Your task to perform on an android device: Open battery settings Image 0: 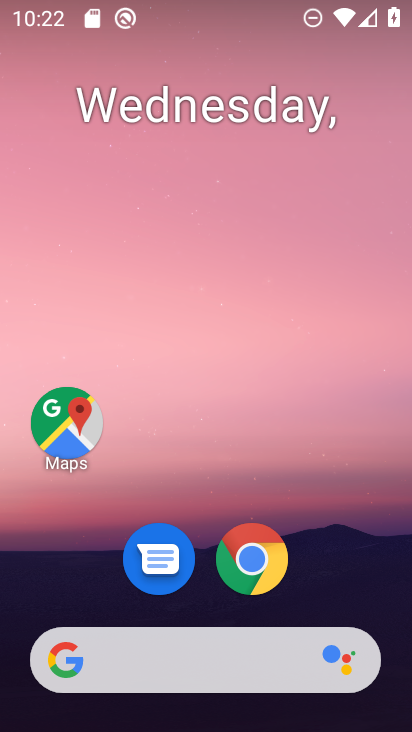
Step 0: drag from (365, 591) to (364, 281)
Your task to perform on an android device: Open battery settings Image 1: 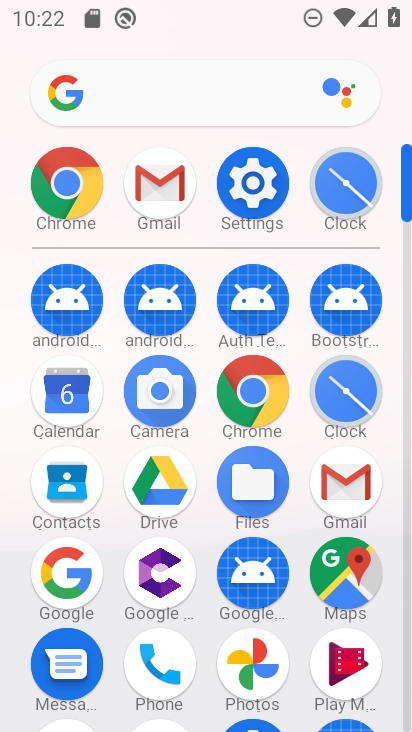
Step 1: click (271, 202)
Your task to perform on an android device: Open battery settings Image 2: 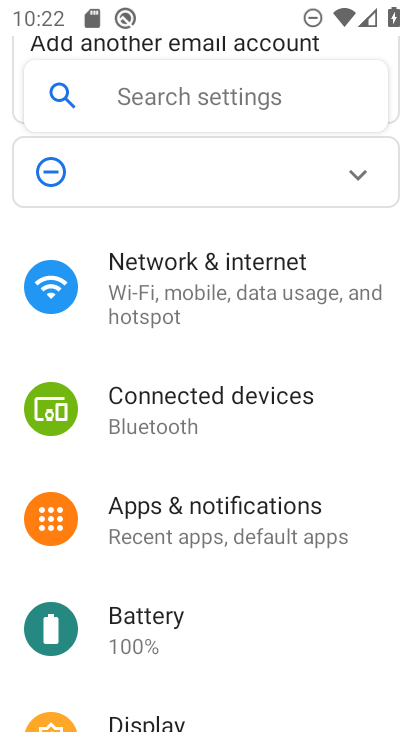
Step 2: drag from (368, 585) to (366, 473)
Your task to perform on an android device: Open battery settings Image 3: 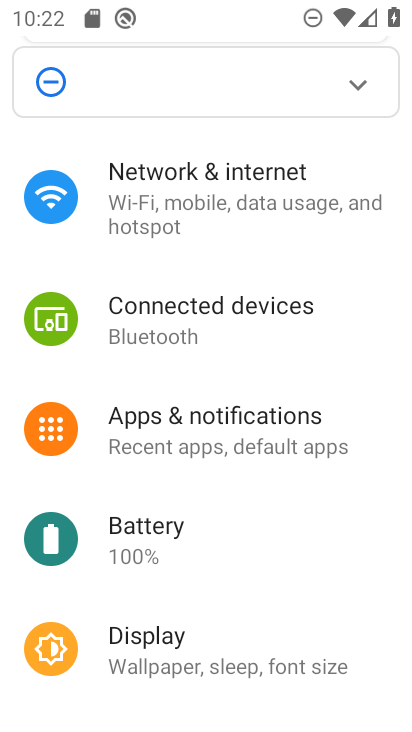
Step 3: drag from (351, 573) to (366, 421)
Your task to perform on an android device: Open battery settings Image 4: 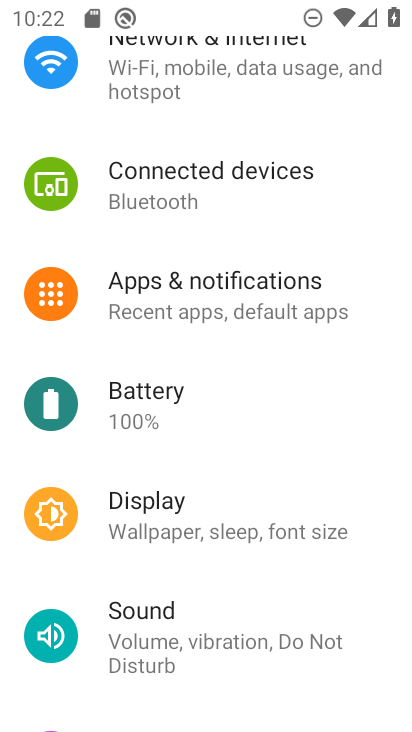
Step 4: drag from (363, 589) to (363, 471)
Your task to perform on an android device: Open battery settings Image 5: 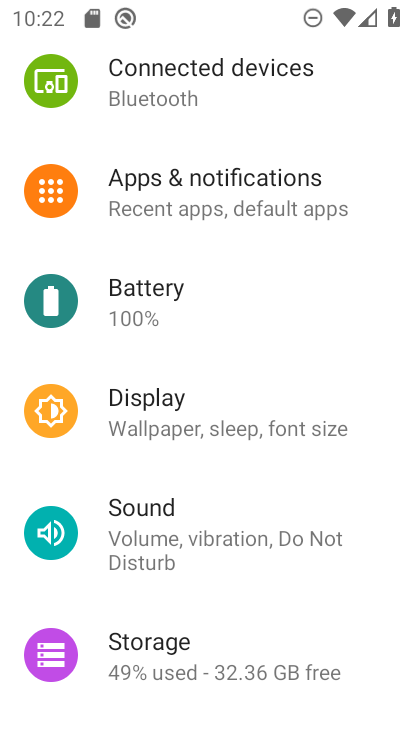
Step 5: click (230, 318)
Your task to perform on an android device: Open battery settings Image 6: 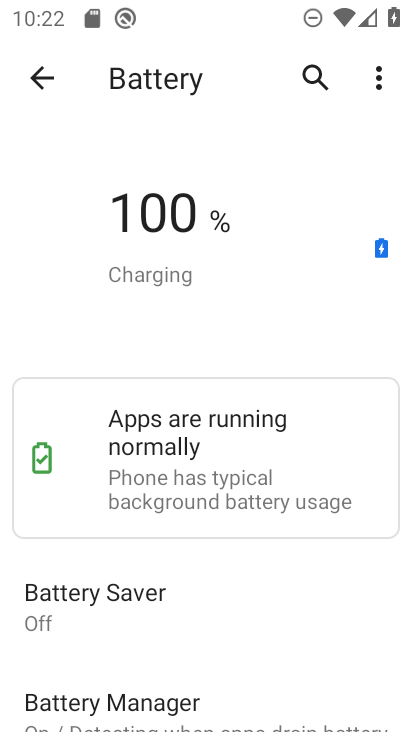
Step 6: task complete